Your task to perform on an android device: When is my next meeting? Image 0: 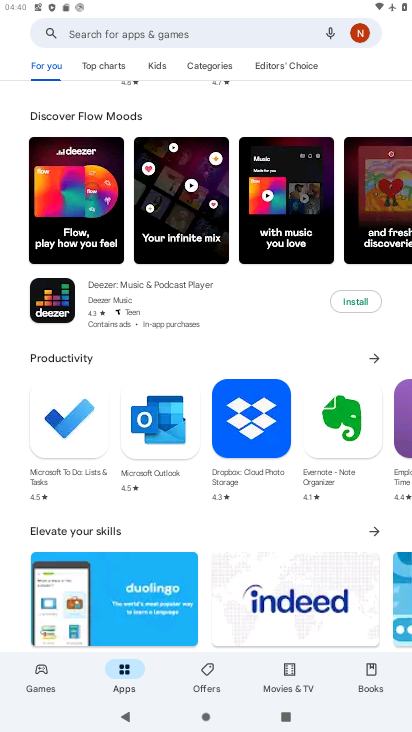
Step 0: press home button
Your task to perform on an android device: When is my next meeting? Image 1: 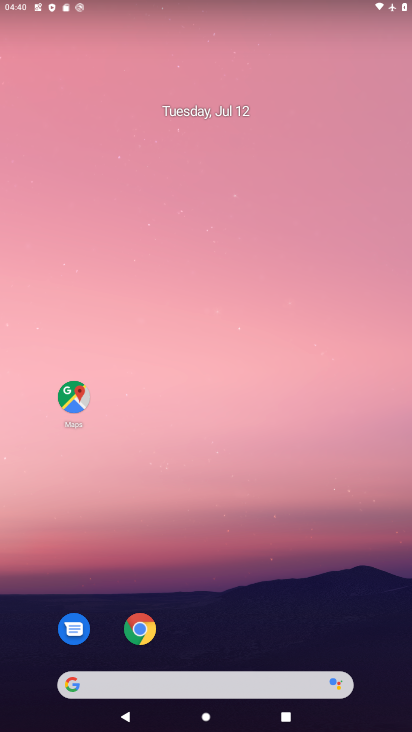
Step 1: drag from (227, 579) to (218, 141)
Your task to perform on an android device: When is my next meeting? Image 2: 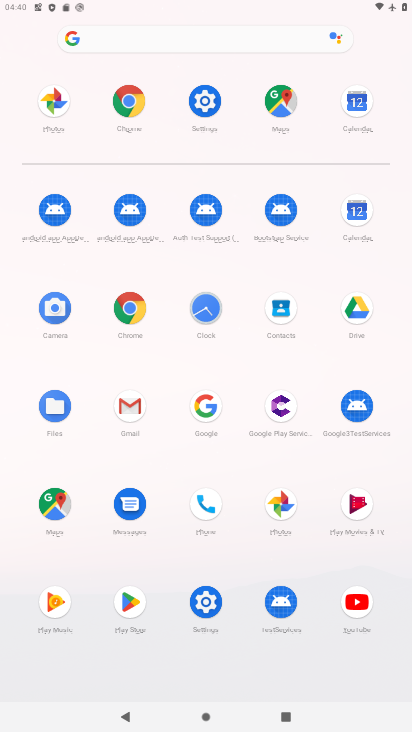
Step 2: click (357, 208)
Your task to perform on an android device: When is my next meeting? Image 3: 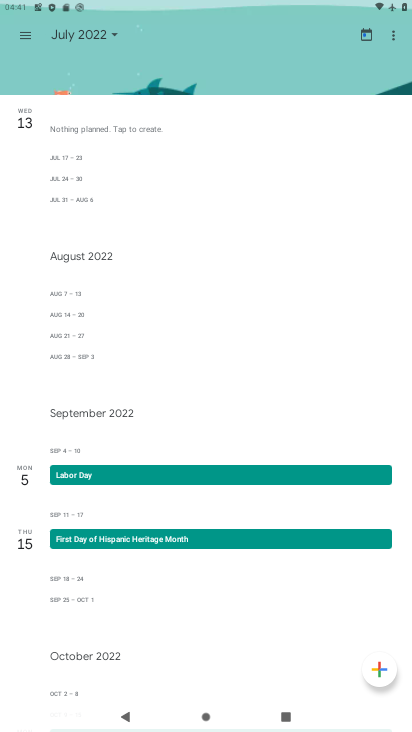
Step 3: click (27, 31)
Your task to perform on an android device: When is my next meeting? Image 4: 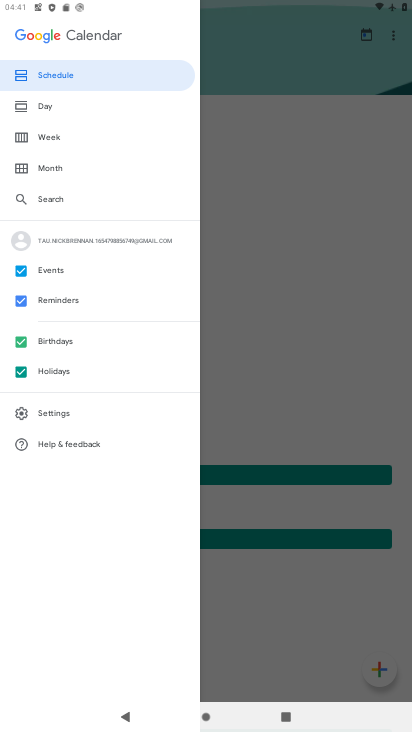
Step 4: click (51, 137)
Your task to perform on an android device: When is my next meeting? Image 5: 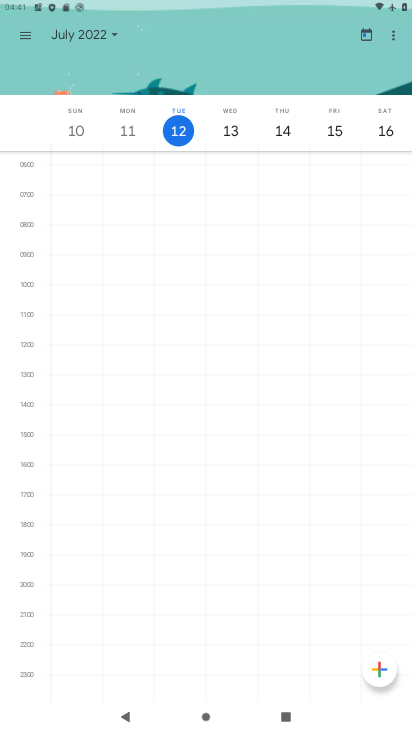
Step 5: task complete